Your task to perform on an android device: Open calendar and show me the fourth week of next month Image 0: 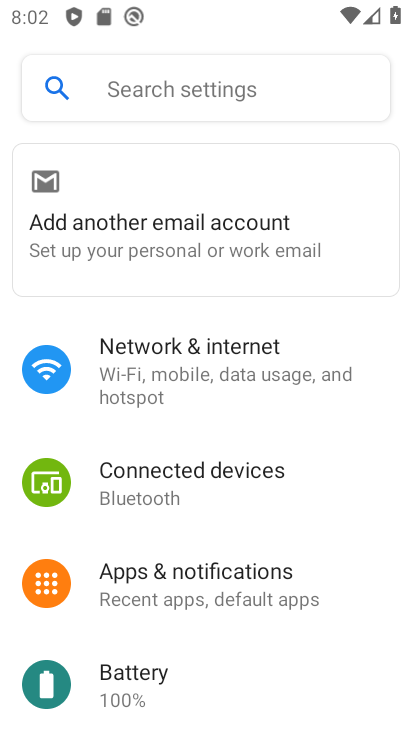
Step 0: press home button
Your task to perform on an android device: Open calendar and show me the fourth week of next month Image 1: 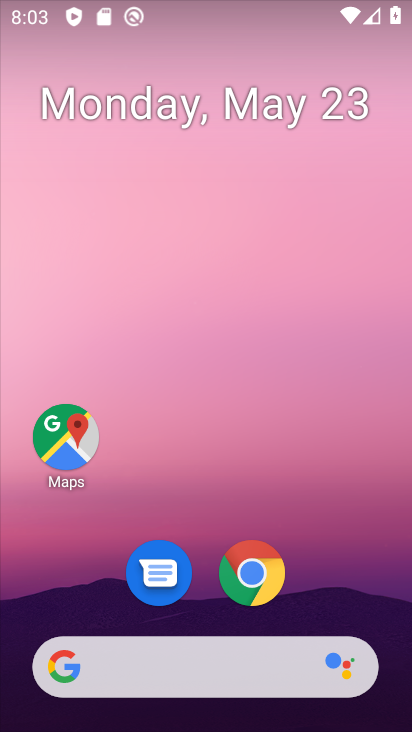
Step 1: drag from (211, 608) to (181, 96)
Your task to perform on an android device: Open calendar and show me the fourth week of next month Image 2: 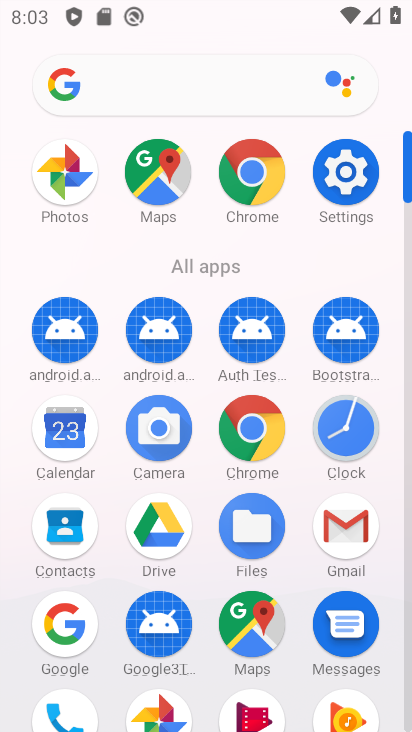
Step 2: click (67, 433)
Your task to perform on an android device: Open calendar and show me the fourth week of next month Image 3: 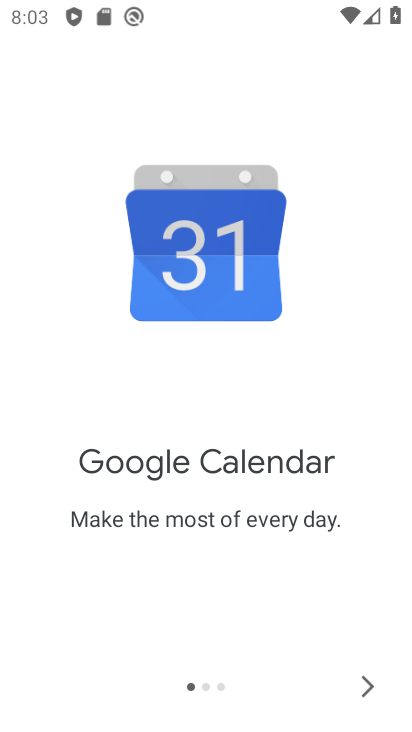
Step 3: click (366, 686)
Your task to perform on an android device: Open calendar and show me the fourth week of next month Image 4: 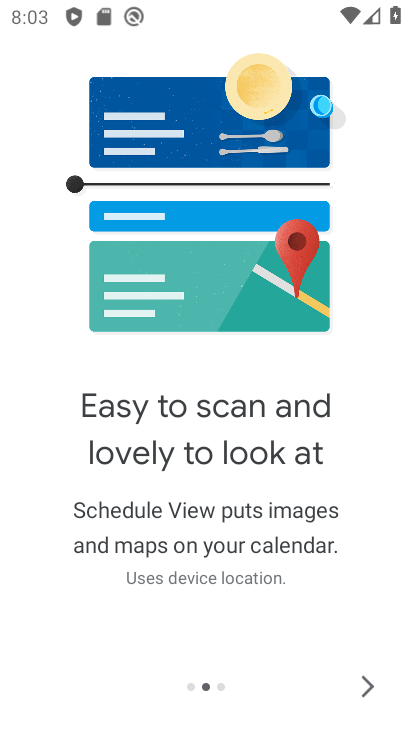
Step 4: click (366, 686)
Your task to perform on an android device: Open calendar and show me the fourth week of next month Image 5: 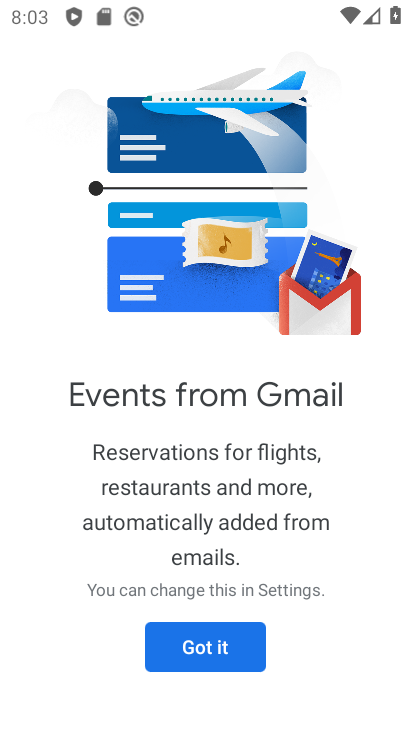
Step 5: click (206, 642)
Your task to perform on an android device: Open calendar and show me the fourth week of next month Image 6: 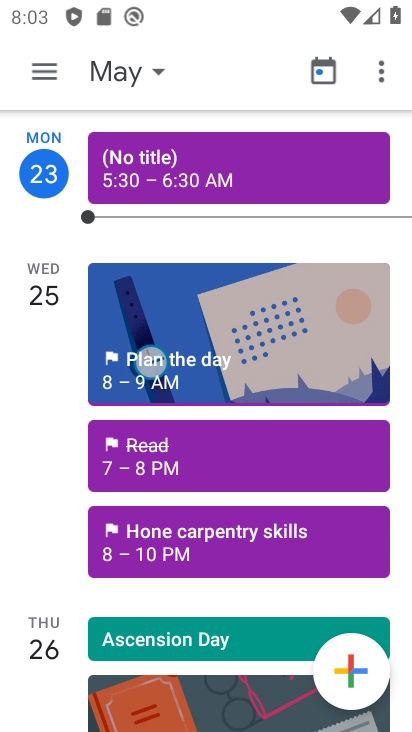
Step 6: click (152, 62)
Your task to perform on an android device: Open calendar and show me the fourth week of next month Image 7: 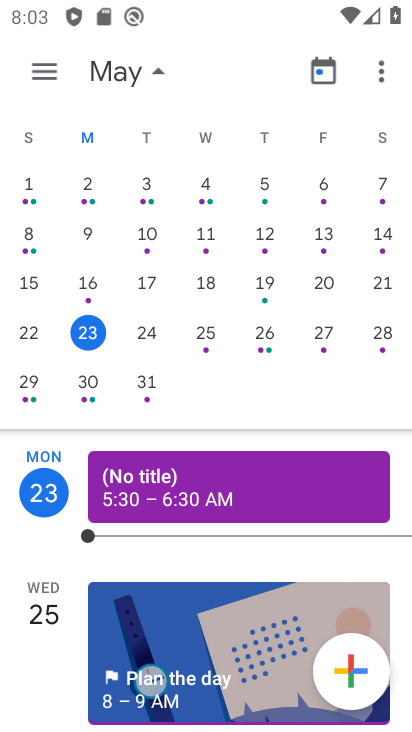
Step 7: drag from (336, 285) to (5, 290)
Your task to perform on an android device: Open calendar and show me the fourth week of next month Image 8: 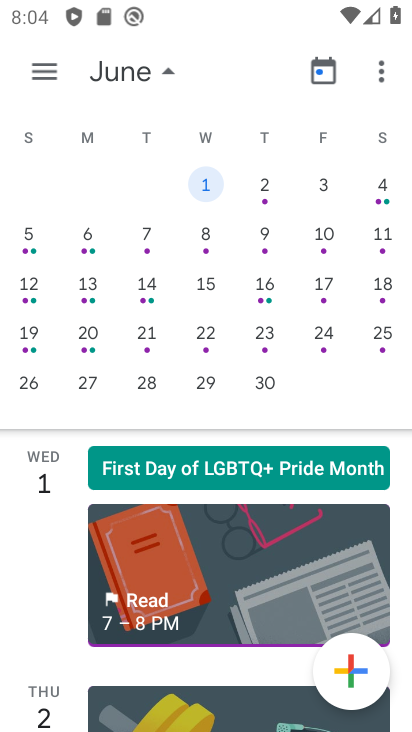
Step 8: click (31, 340)
Your task to perform on an android device: Open calendar and show me the fourth week of next month Image 9: 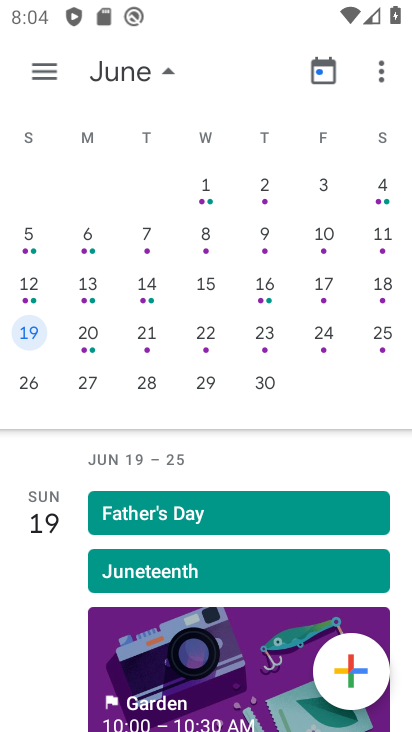
Step 9: click (167, 69)
Your task to perform on an android device: Open calendar and show me the fourth week of next month Image 10: 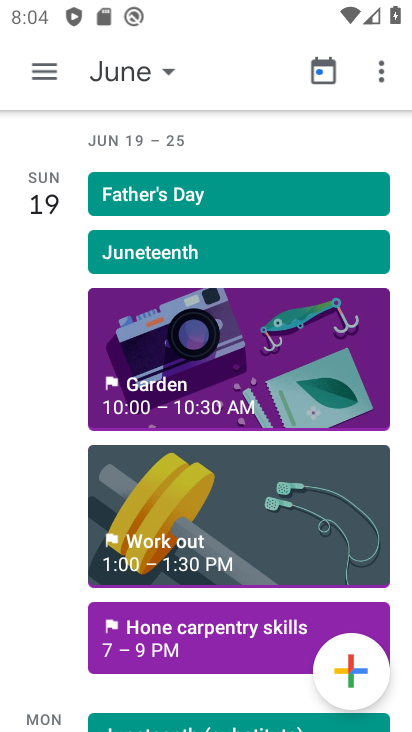
Step 10: task complete